Your task to perform on an android device: Open Chrome and go to the settings page Image 0: 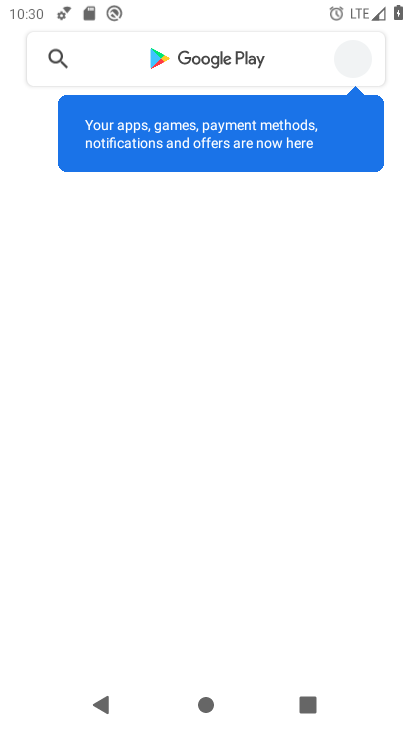
Step 0: press home button
Your task to perform on an android device: Open Chrome and go to the settings page Image 1: 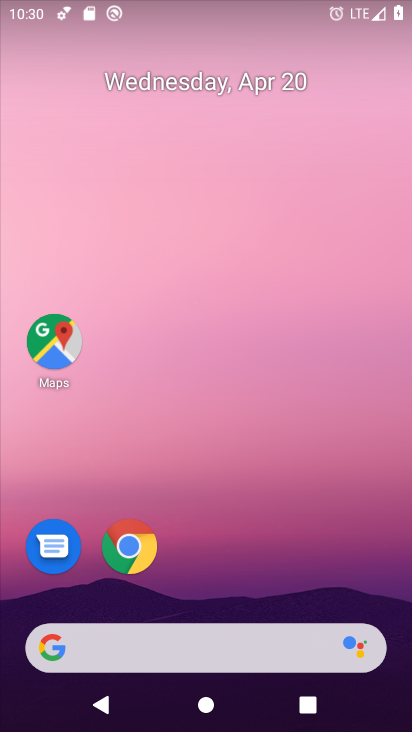
Step 1: click (134, 559)
Your task to perform on an android device: Open Chrome and go to the settings page Image 2: 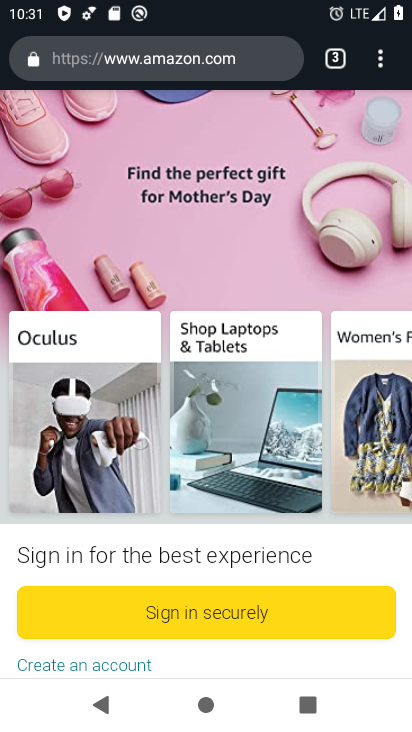
Step 2: task complete